Your task to perform on an android device: open the mobile data screen to see how much data has been used Image 0: 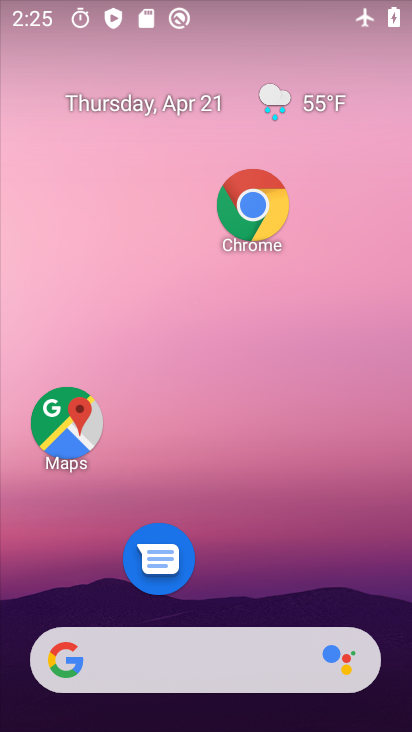
Step 0: drag from (219, 624) to (175, 8)
Your task to perform on an android device: open the mobile data screen to see how much data has been used Image 1: 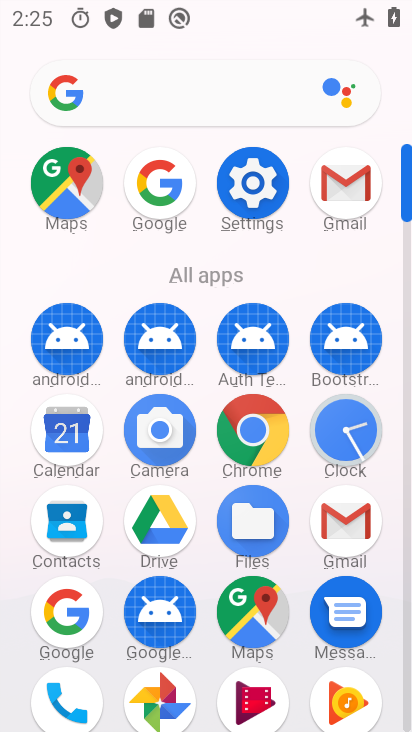
Step 1: click (247, 185)
Your task to perform on an android device: open the mobile data screen to see how much data has been used Image 2: 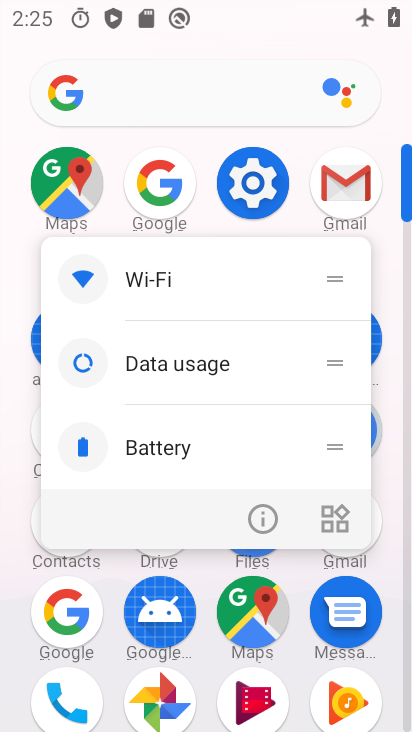
Step 2: click (247, 185)
Your task to perform on an android device: open the mobile data screen to see how much data has been used Image 3: 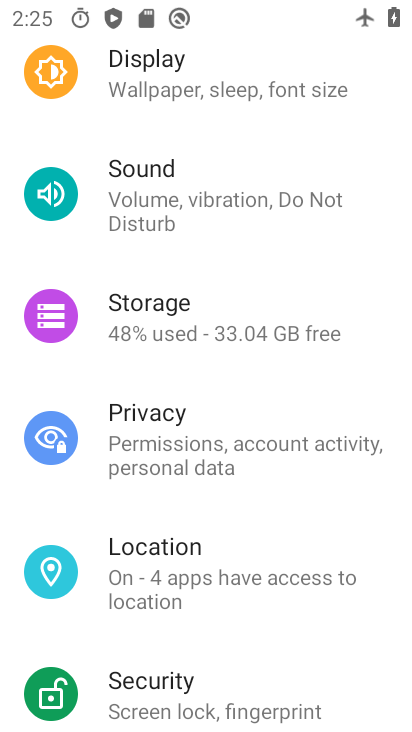
Step 3: drag from (247, 185) to (227, 581)
Your task to perform on an android device: open the mobile data screen to see how much data has been used Image 4: 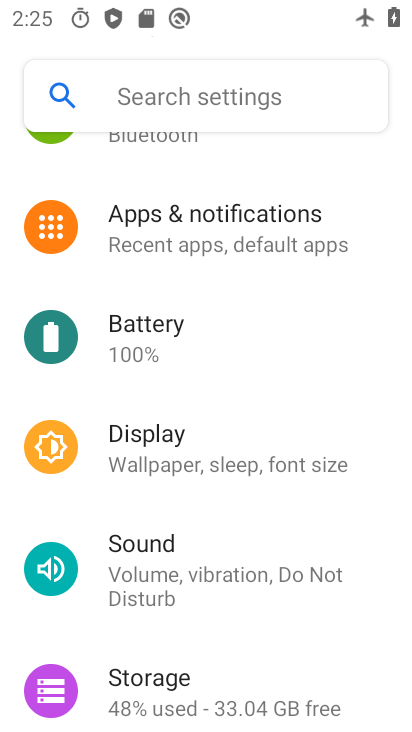
Step 4: drag from (210, 243) to (165, 625)
Your task to perform on an android device: open the mobile data screen to see how much data has been used Image 5: 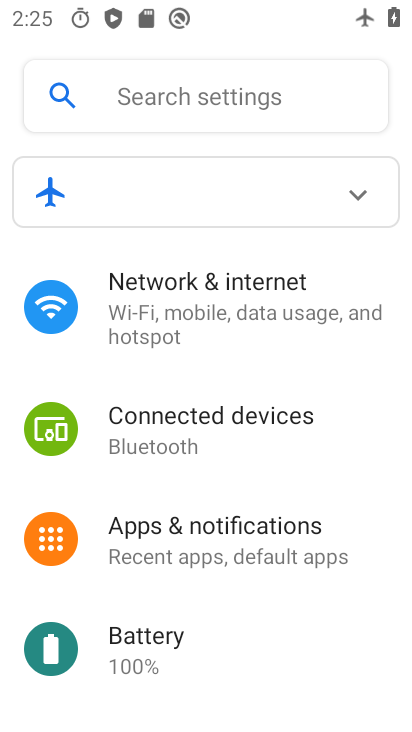
Step 5: click (137, 281)
Your task to perform on an android device: open the mobile data screen to see how much data has been used Image 6: 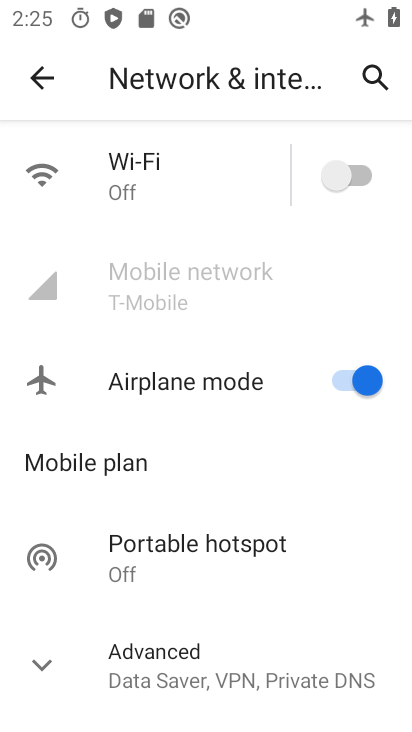
Step 6: task complete